Your task to perform on an android device: Search for vegetarian restaurants on Maps Image 0: 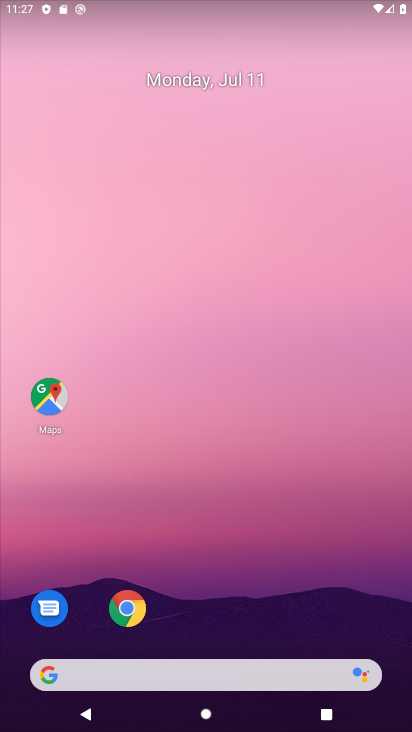
Step 0: click (48, 404)
Your task to perform on an android device: Search for vegetarian restaurants on Maps Image 1: 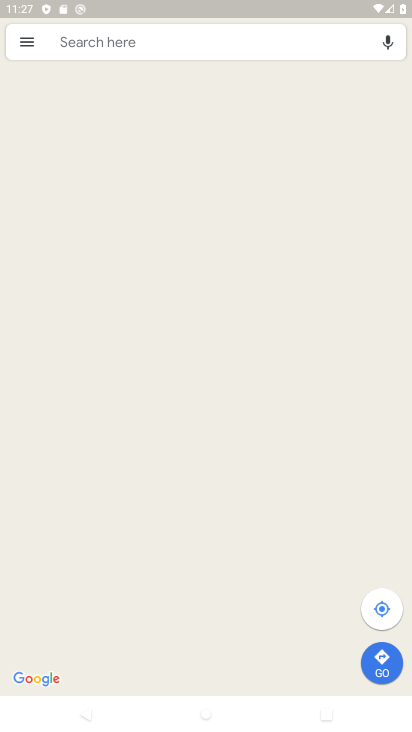
Step 1: click (265, 52)
Your task to perform on an android device: Search for vegetarian restaurants on Maps Image 2: 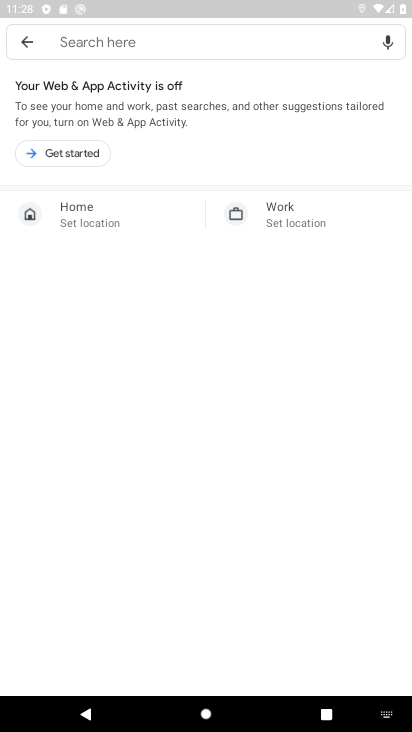
Step 2: type "vegetarian restaurant"
Your task to perform on an android device: Search for vegetarian restaurants on Maps Image 3: 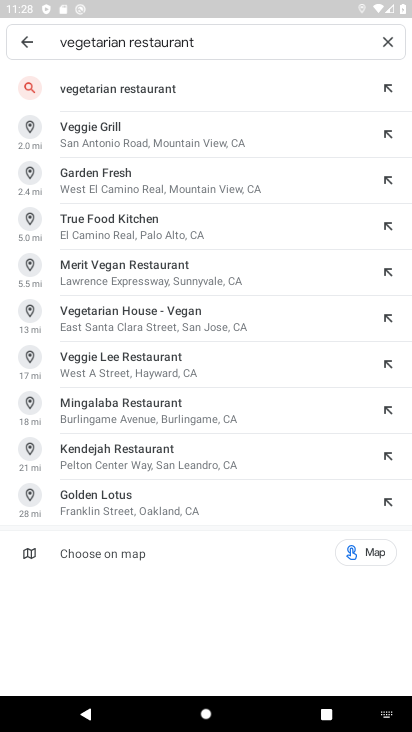
Step 3: click (321, 90)
Your task to perform on an android device: Search for vegetarian restaurants on Maps Image 4: 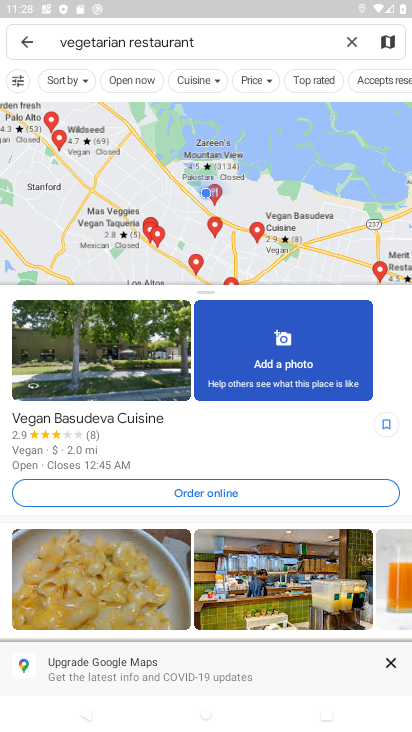
Step 4: task complete